Your task to perform on an android device: turn on showing notifications on the lock screen Image 0: 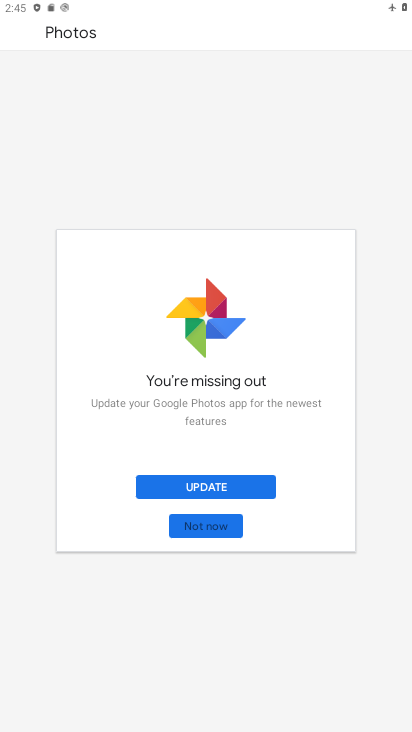
Step 0: click (229, 533)
Your task to perform on an android device: turn on showing notifications on the lock screen Image 1: 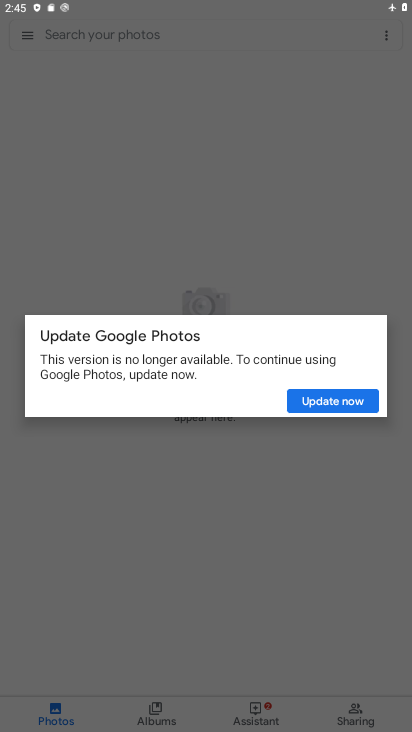
Step 1: press home button
Your task to perform on an android device: turn on showing notifications on the lock screen Image 2: 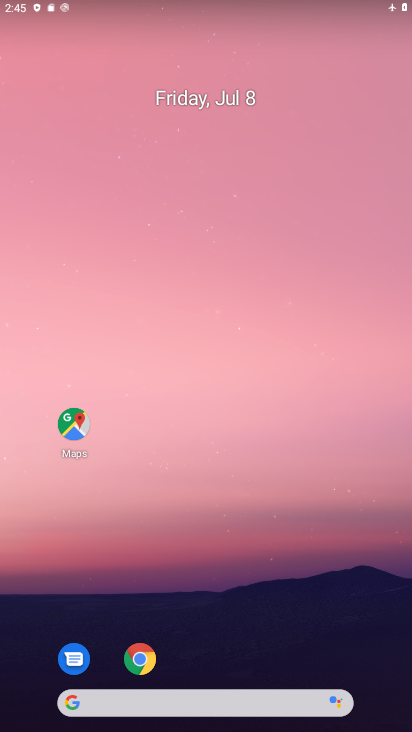
Step 2: drag from (239, 599) to (305, 61)
Your task to perform on an android device: turn on showing notifications on the lock screen Image 3: 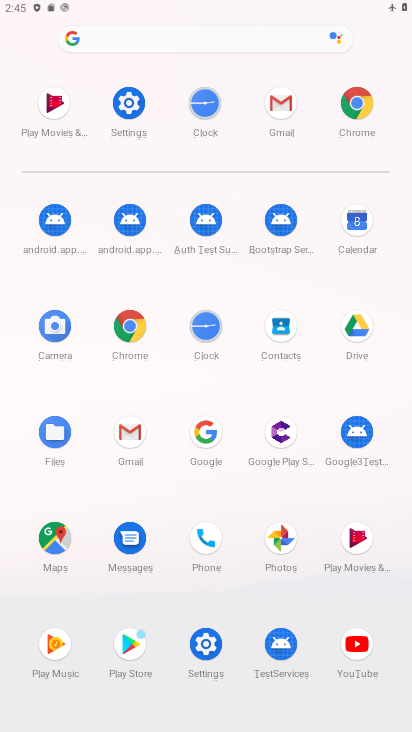
Step 3: click (206, 661)
Your task to perform on an android device: turn on showing notifications on the lock screen Image 4: 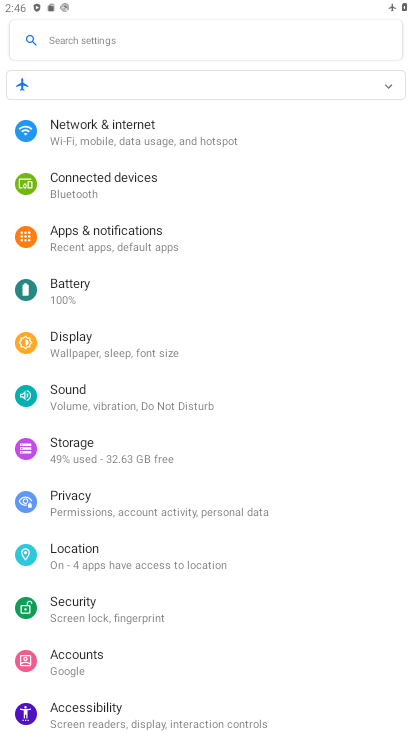
Step 4: click (113, 233)
Your task to perform on an android device: turn on showing notifications on the lock screen Image 5: 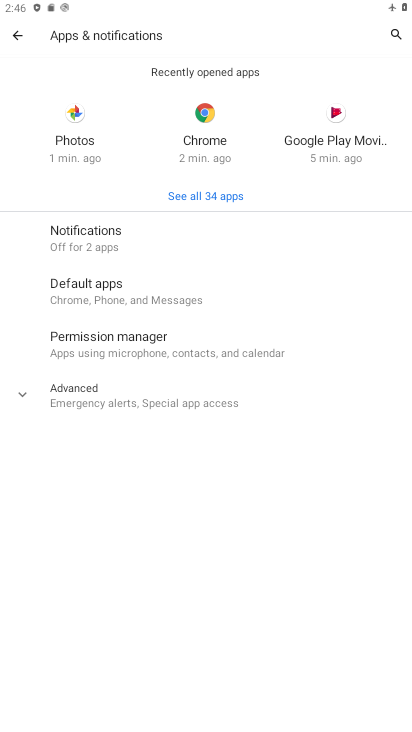
Step 5: click (118, 230)
Your task to perform on an android device: turn on showing notifications on the lock screen Image 6: 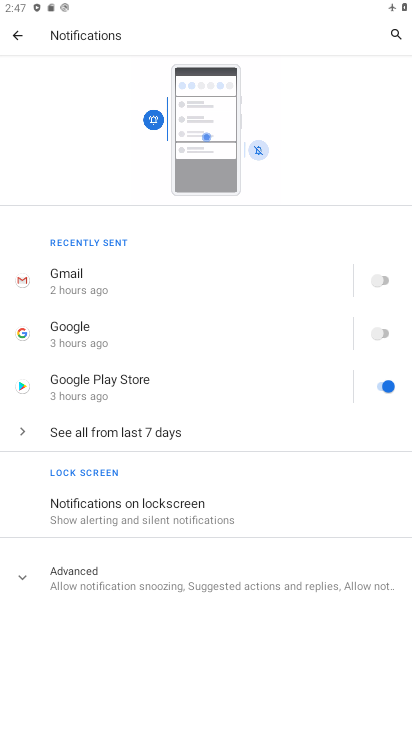
Step 6: click (168, 520)
Your task to perform on an android device: turn on showing notifications on the lock screen Image 7: 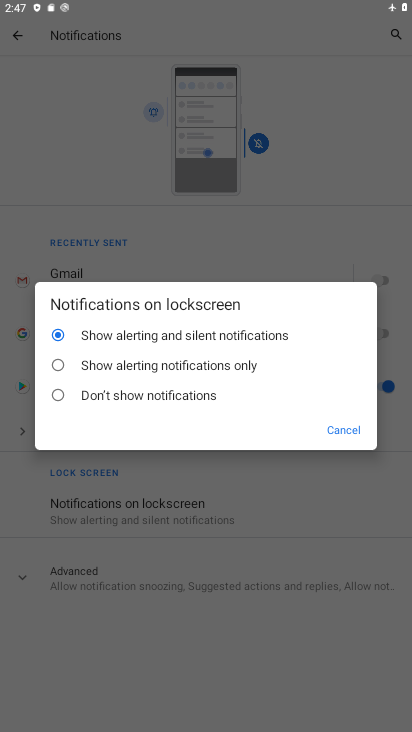
Step 7: task complete